Your task to perform on an android device: turn on the 24-hour format for clock Image 0: 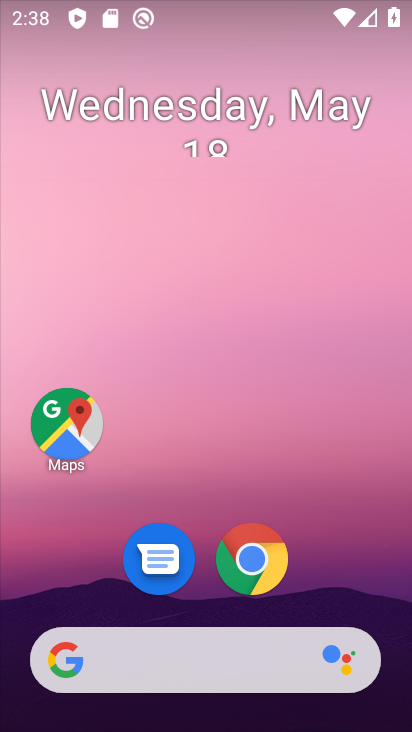
Step 0: drag from (192, 586) to (267, 74)
Your task to perform on an android device: turn on the 24-hour format for clock Image 1: 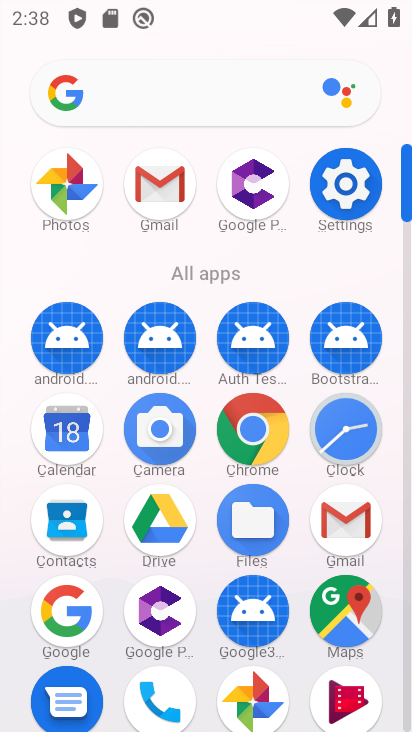
Step 1: click (340, 431)
Your task to perform on an android device: turn on the 24-hour format for clock Image 2: 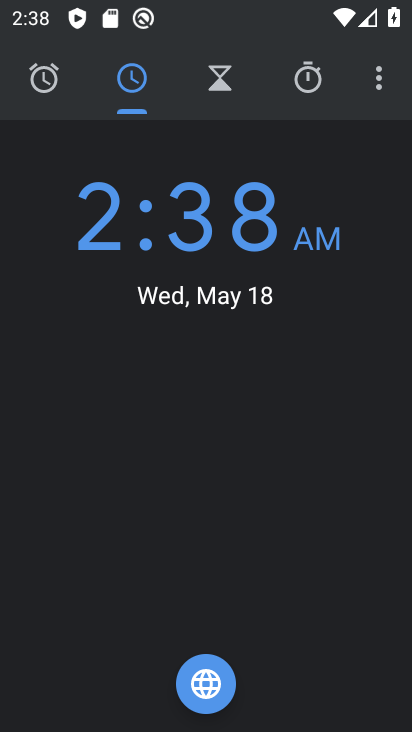
Step 2: click (373, 81)
Your task to perform on an android device: turn on the 24-hour format for clock Image 3: 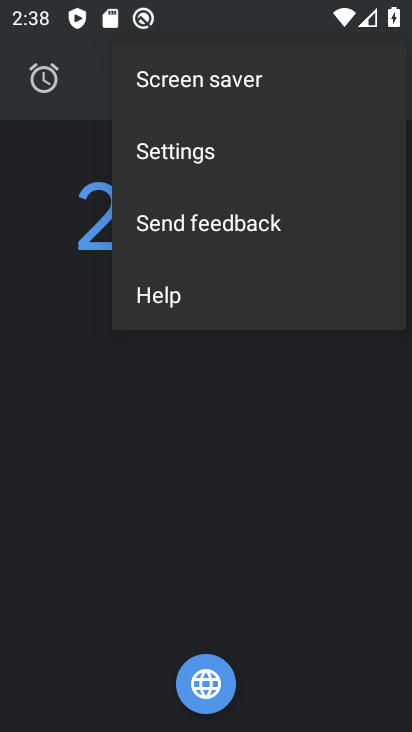
Step 3: click (160, 147)
Your task to perform on an android device: turn on the 24-hour format for clock Image 4: 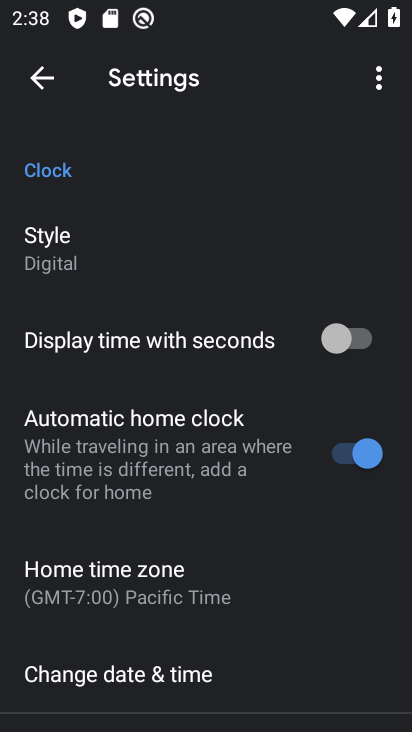
Step 4: click (116, 666)
Your task to perform on an android device: turn on the 24-hour format for clock Image 5: 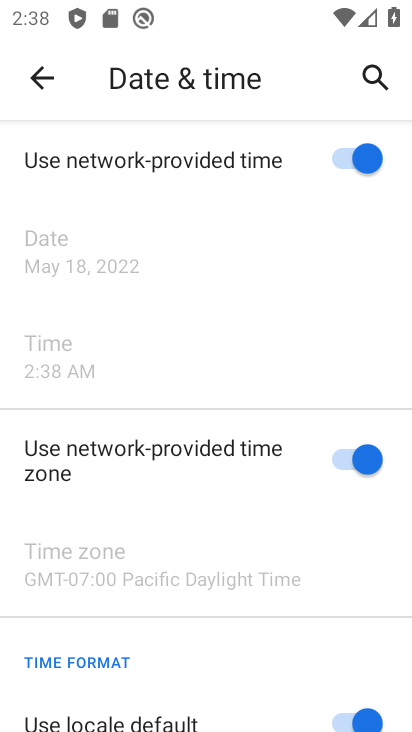
Step 5: drag from (150, 628) to (226, 117)
Your task to perform on an android device: turn on the 24-hour format for clock Image 6: 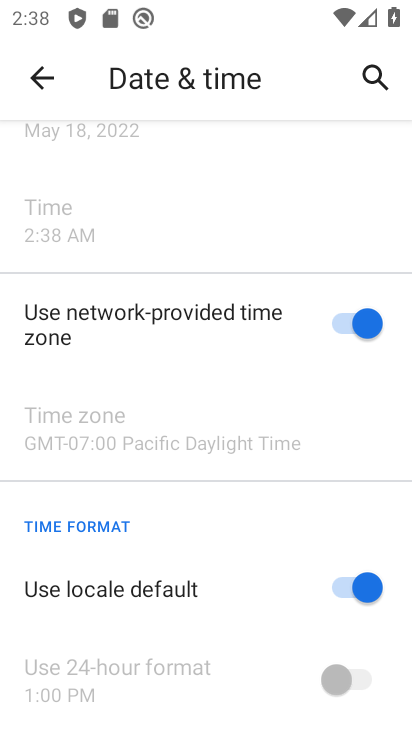
Step 6: click (343, 581)
Your task to perform on an android device: turn on the 24-hour format for clock Image 7: 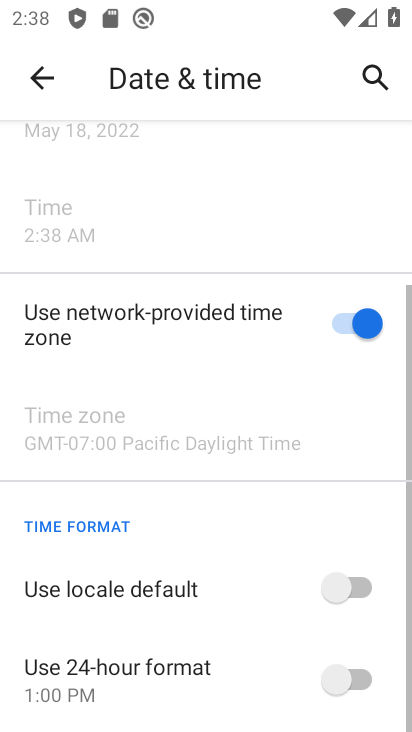
Step 7: click (341, 675)
Your task to perform on an android device: turn on the 24-hour format for clock Image 8: 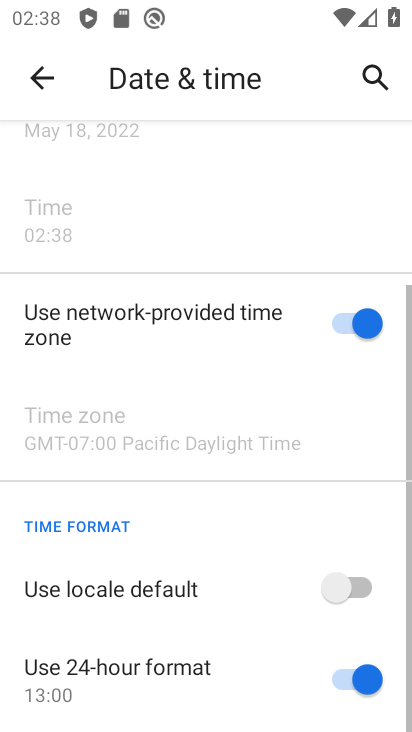
Step 8: task complete